Your task to perform on an android device: Open sound settings Image 0: 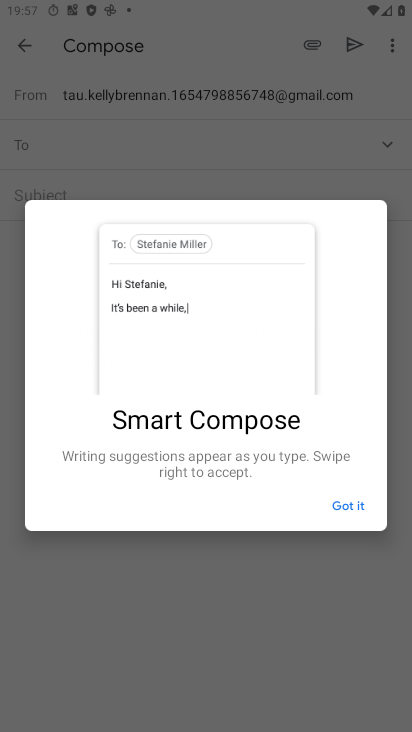
Step 0: press home button
Your task to perform on an android device: Open sound settings Image 1: 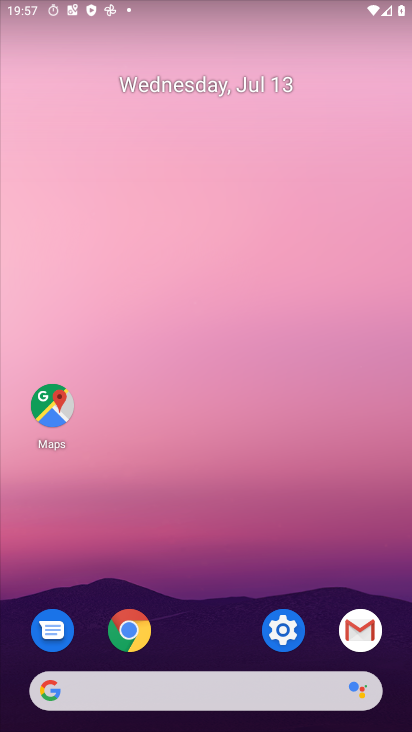
Step 1: click (284, 629)
Your task to perform on an android device: Open sound settings Image 2: 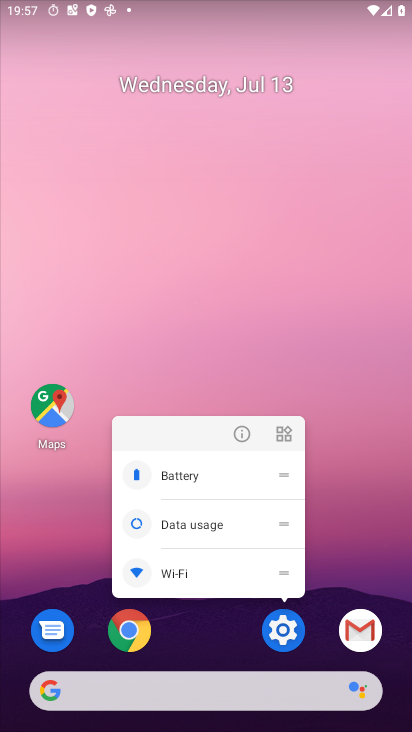
Step 2: click (291, 640)
Your task to perform on an android device: Open sound settings Image 3: 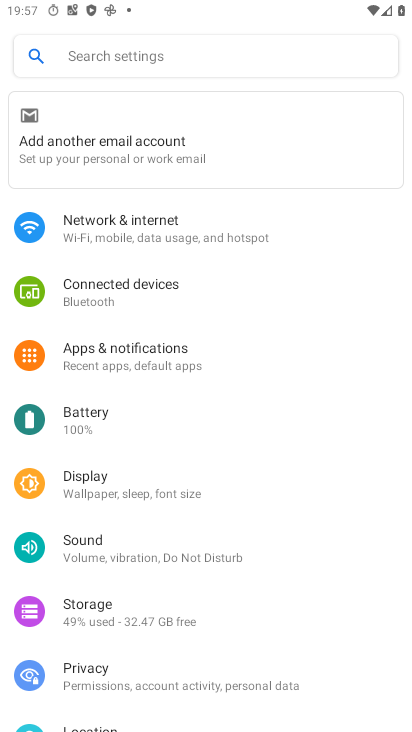
Step 3: click (80, 545)
Your task to perform on an android device: Open sound settings Image 4: 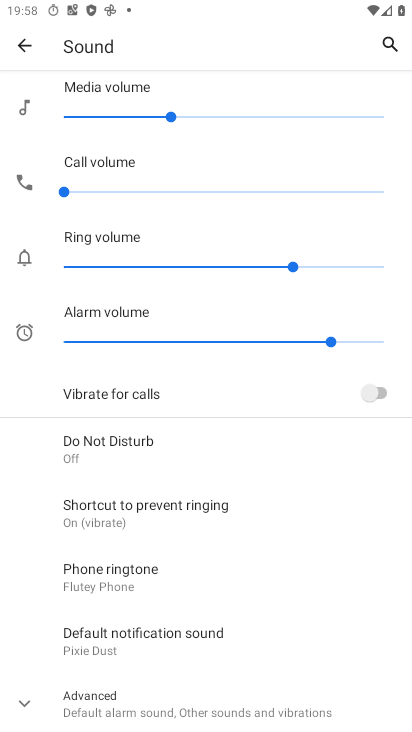
Step 4: task complete